Your task to perform on an android device: toggle improve location accuracy Image 0: 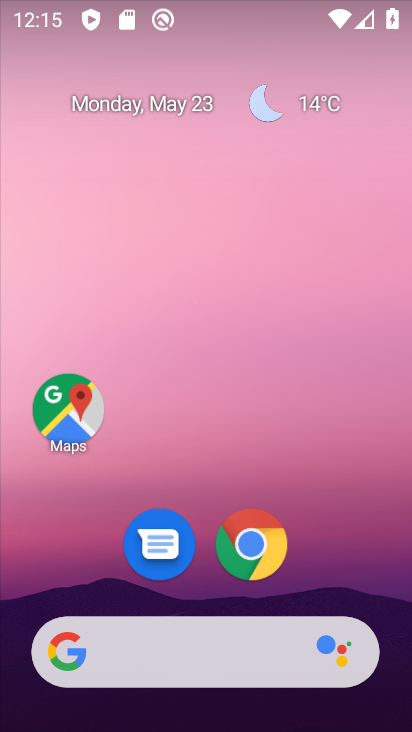
Step 0: drag from (369, 562) to (273, 113)
Your task to perform on an android device: toggle improve location accuracy Image 1: 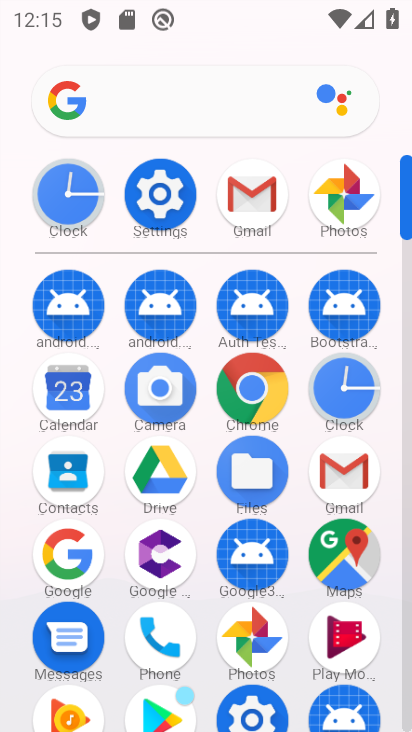
Step 1: click (162, 197)
Your task to perform on an android device: toggle improve location accuracy Image 2: 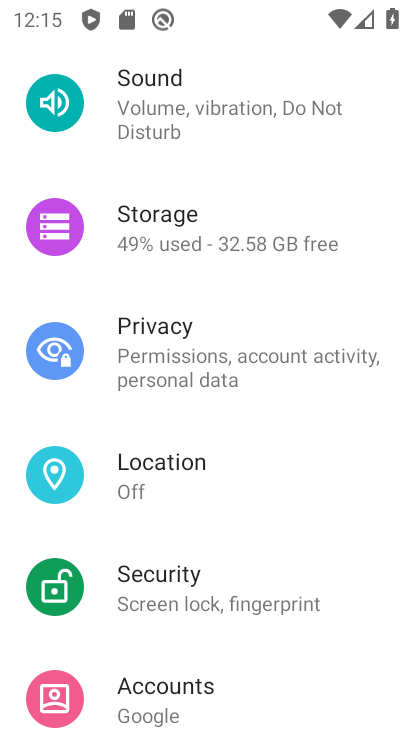
Step 2: click (172, 480)
Your task to perform on an android device: toggle improve location accuracy Image 3: 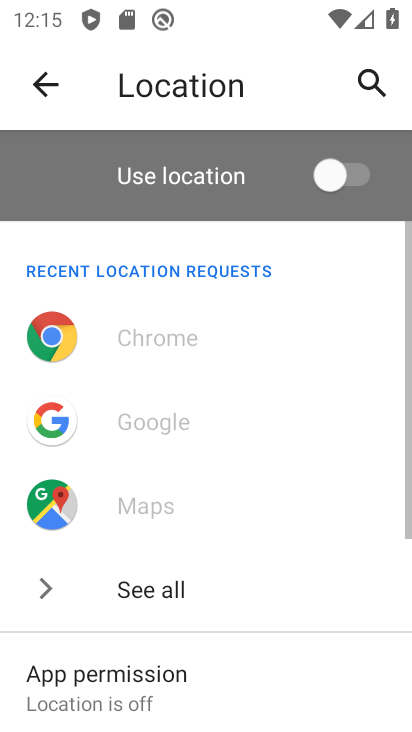
Step 3: drag from (247, 620) to (221, 85)
Your task to perform on an android device: toggle improve location accuracy Image 4: 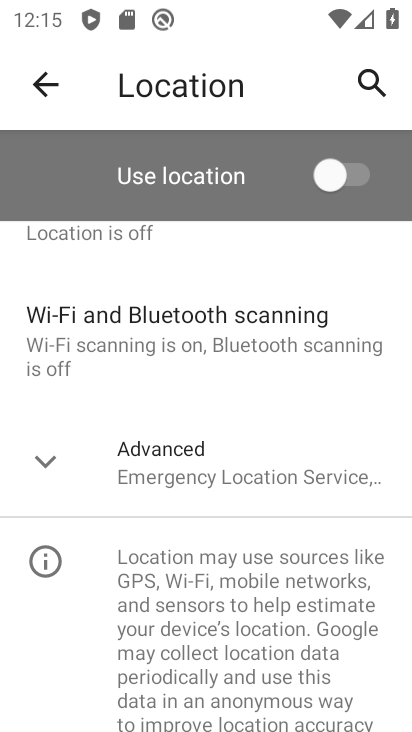
Step 4: click (212, 477)
Your task to perform on an android device: toggle improve location accuracy Image 5: 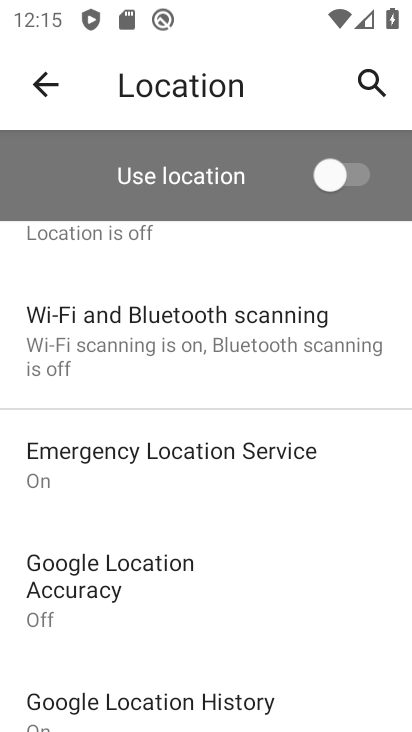
Step 5: drag from (195, 584) to (191, 252)
Your task to perform on an android device: toggle improve location accuracy Image 6: 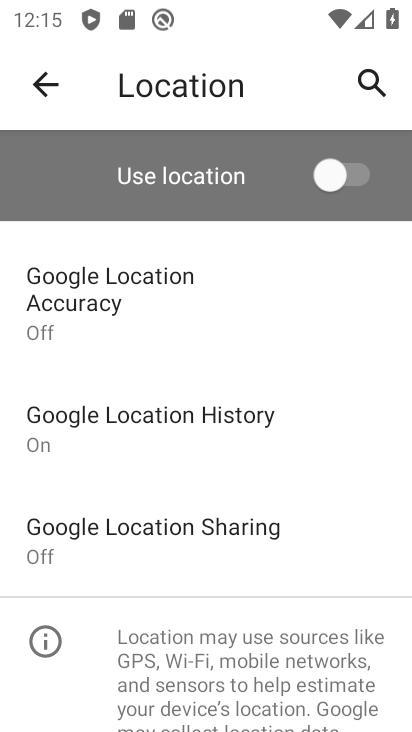
Step 6: click (153, 302)
Your task to perform on an android device: toggle improve location accuracy Image 7: 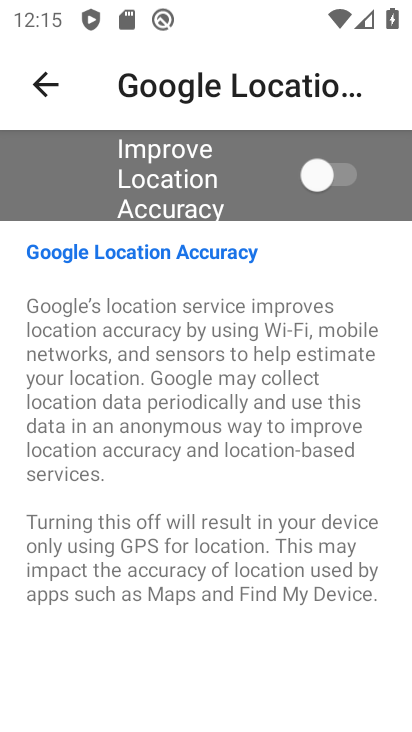
Step 7: click (343, 168)
Your task to perform on an android device: toggle improve location accuracy Image 8: 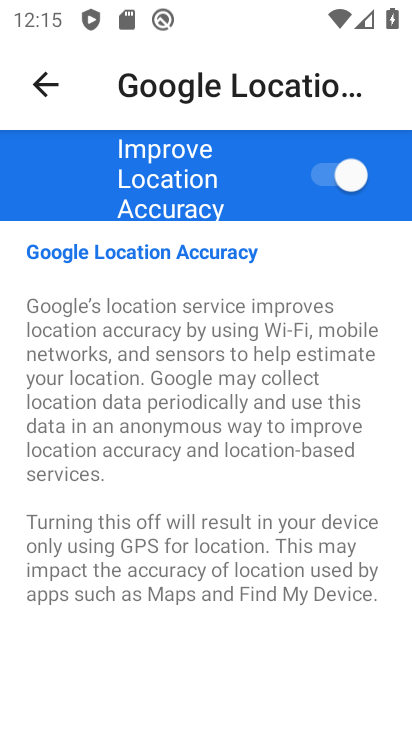
Step 8: task complete